Your task to perform on an android device: Open Wikipedia Image 0: 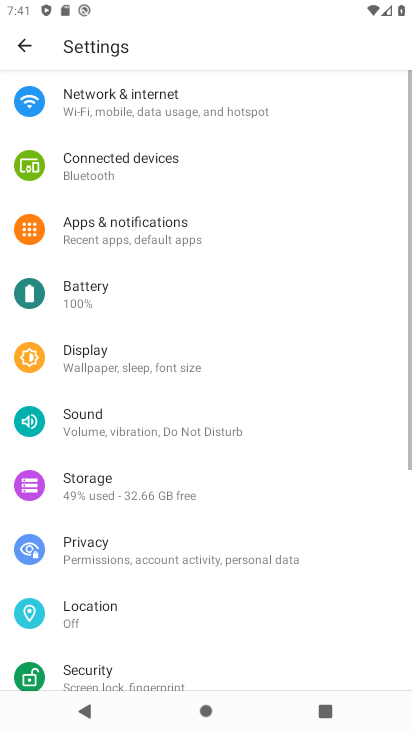
Step 0: press home button
Your task to perform on an android device: Open Wikipedia Image 1: 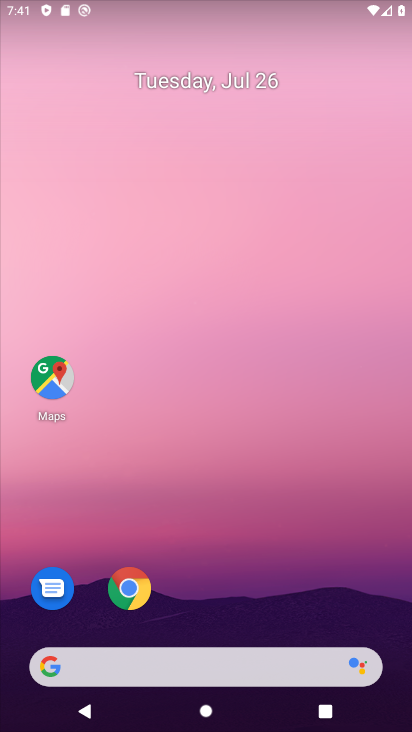
Step 1: drag from (337, 589) to (243, 5)
Your task to perform on an android device: Open Wikipedia Image 2: 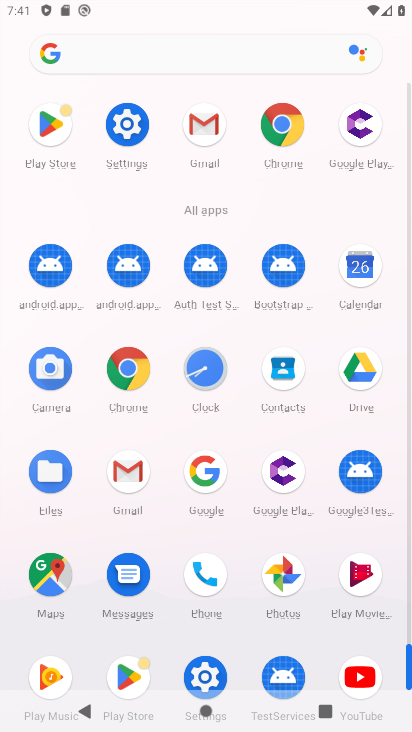
Step 2: click (284, 126)
Your task to perform on an android device: Open Wikipedia Image 3: 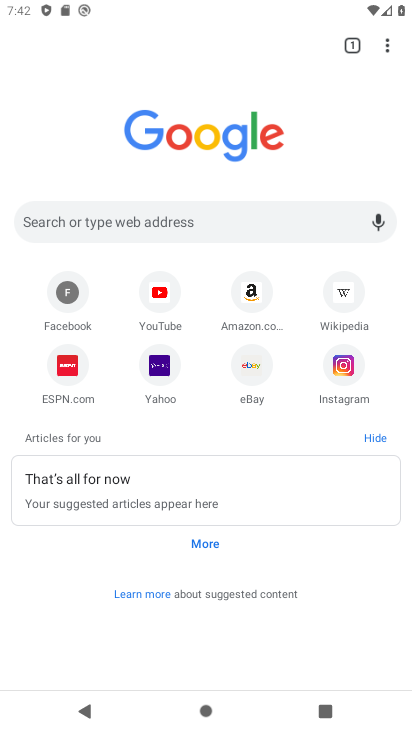
Step 3: click (340, 292)
Your task to perform on an android device: Open Wikipedia Image 4: 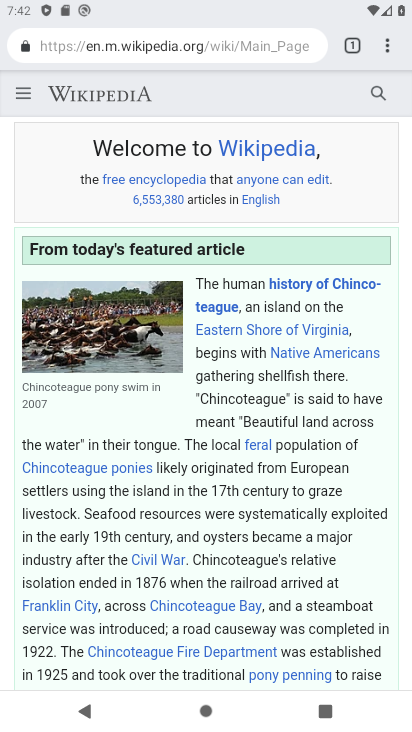
Step 4: task complete